Your task to perform on an android device: Open Youtube and go to the subscriptions tab Image 0: 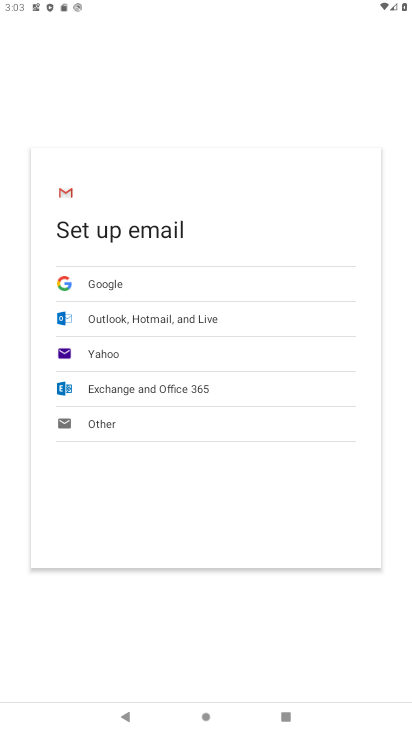
Step 0: press home button
Your task to perform on an android device: Open Youtube and go to the subscriptions tab Image 1: 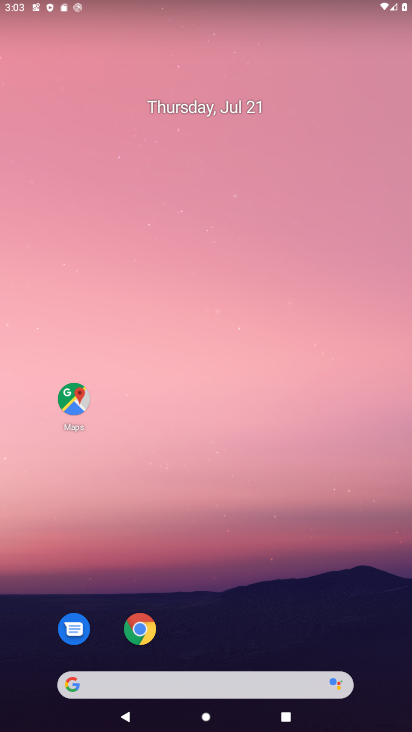
Step 1: drag from (401, 693) to (411, 72)
Your task to perform on an android device: Open Youtube and go to the subscriptions tab Image 2: 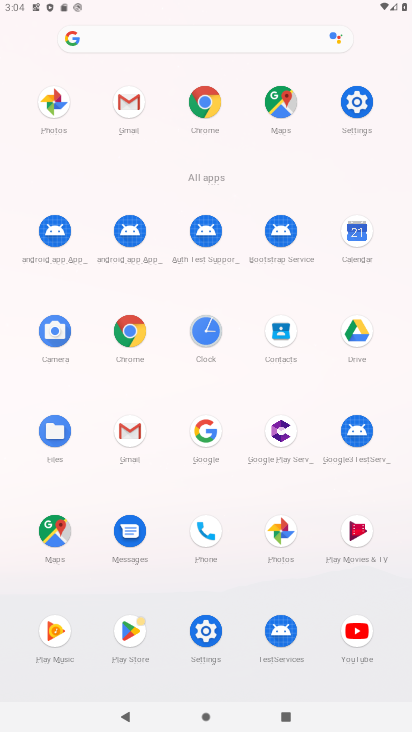
Step 2: click (345, 619)
Your task to perform on an android device: Open Youtube and go to the subscriptions tab Image 3: 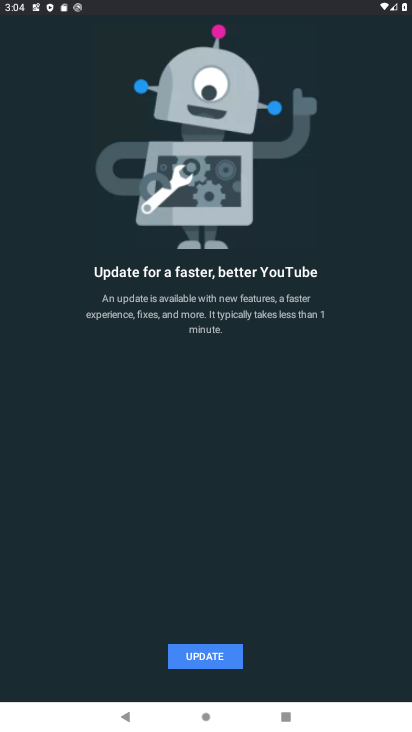
Step 3: click (208, 656)
Your task to perform on an android device: Open Youtube and go to the subscriptions tab Image 4: 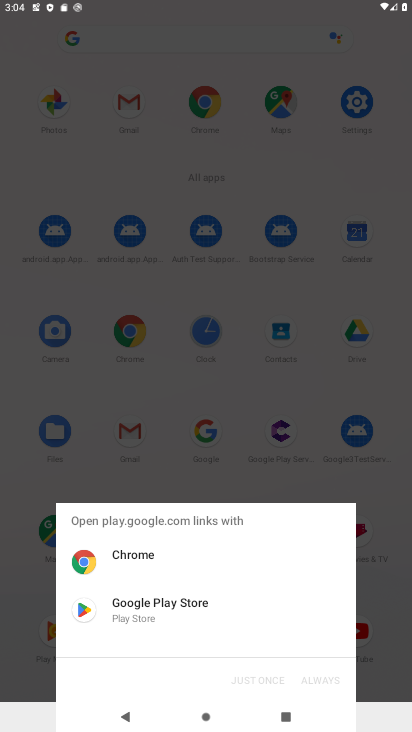
Step 4: click (149, 605)
Your task to perform on an android device: Open Youtube and go to the subscriptions tab Image 5: 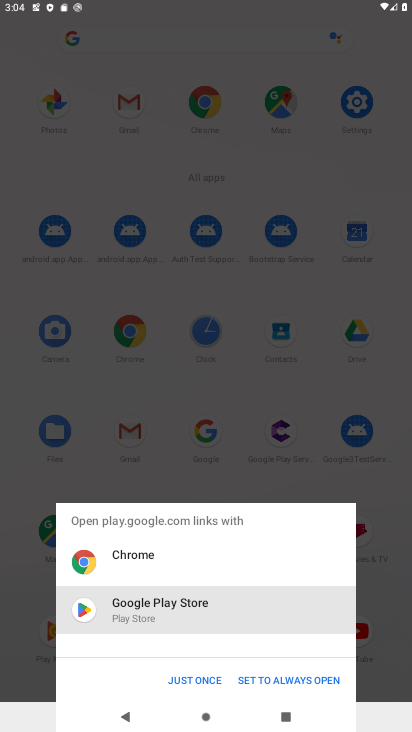
Step 5: click (190, 676)
Your task to perform on an android device: Open Youtube and go to the subscriptions tab Image 6: 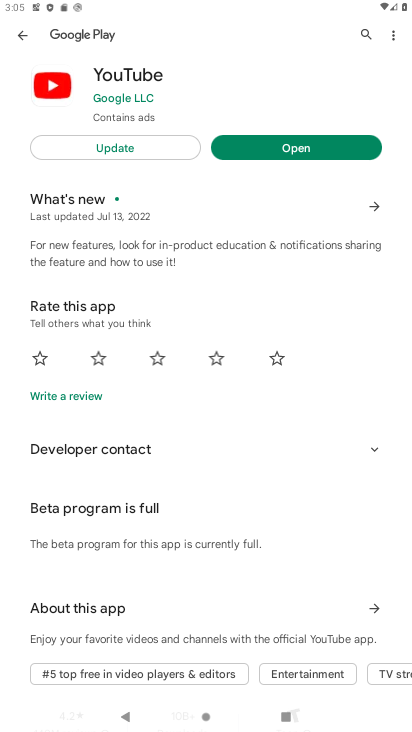
Step 6: click (107, 146)
Your task to perform on an android device: Open Youtube and go to the subscriptions tab Image 7: 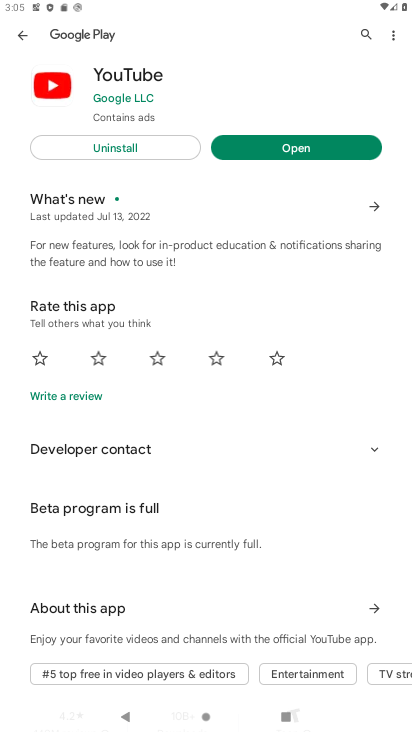
Step 7: click (308, 144)
Your task to perform on an android device: Open Youtube and go to the subscriptions tab Image 8: 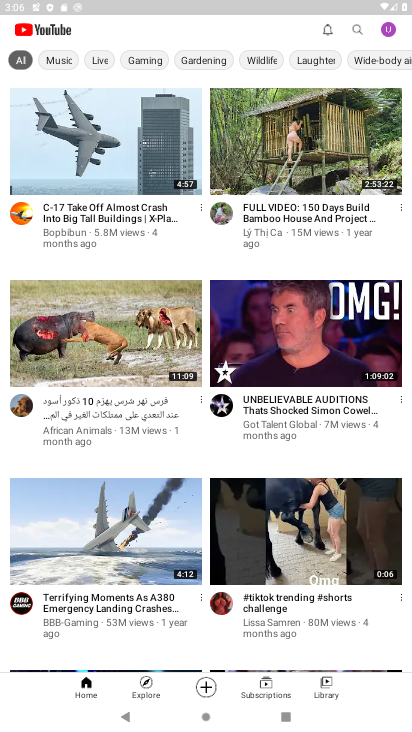
Step 8: click (273, 687)
Your task to perform on an android device: Open Youtube and go to the subscriptions tab Image 9: 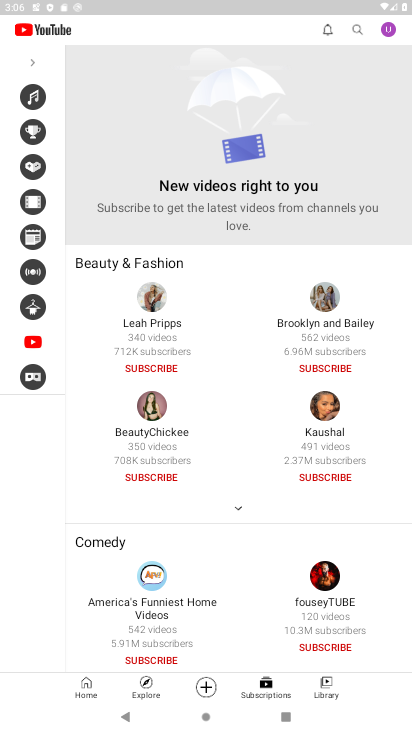
Step 9: task complete